Your task to perform on an android device: turn off improve location accuracy Image 0: 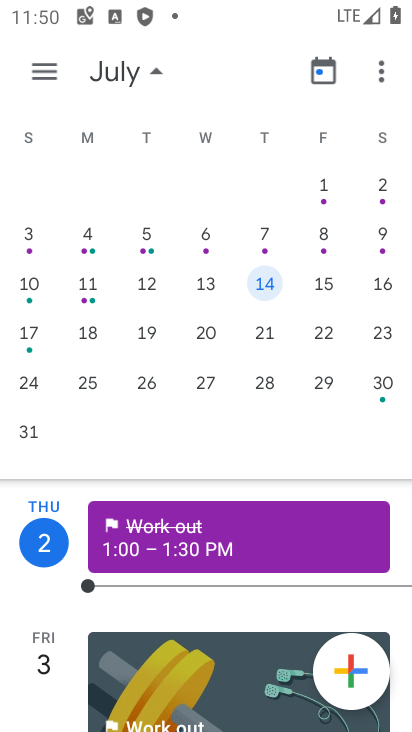
Step 0: press home button
Your task to perform on an android device: turn off improve location accuracy Image 1: 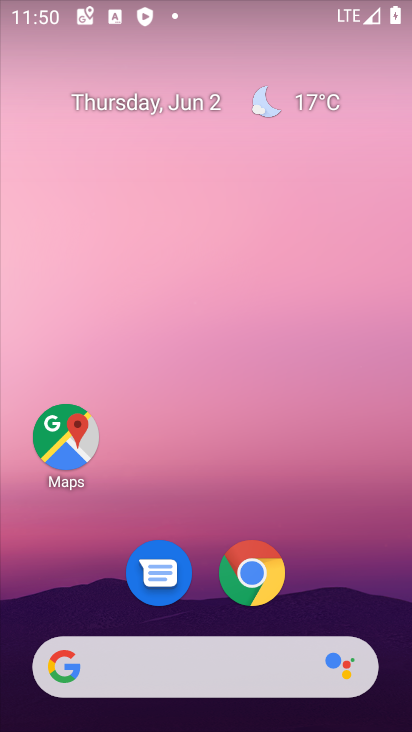
Step 1: drag from (369, 589) to (396, 23)
Your task to perform on an android device: turn off improve location accuracy Image 2: 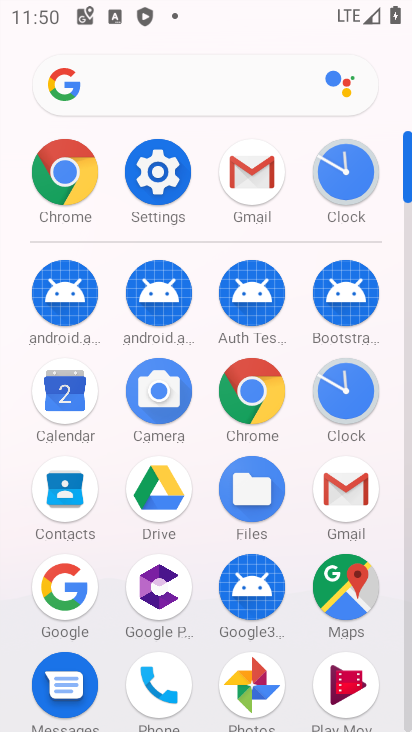
Step 2: click (164, 179)
Your task to perform on an android device: turn off improve location accuracy Image 3: 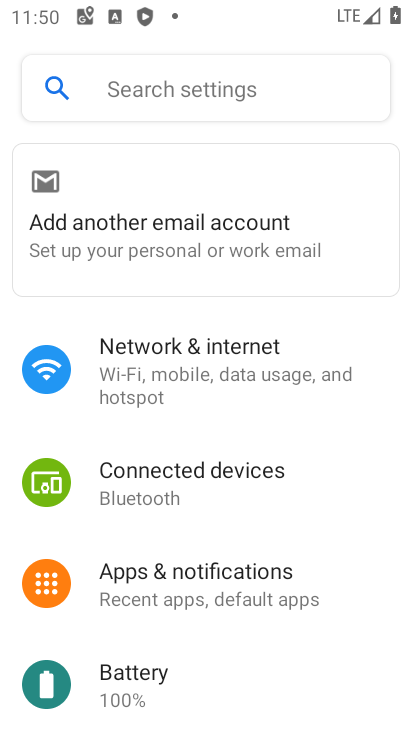
Step 3: drag from (253, 604) to (301, 27)
Your task to perform on an android device: turn off improve location accuracy Image 4: 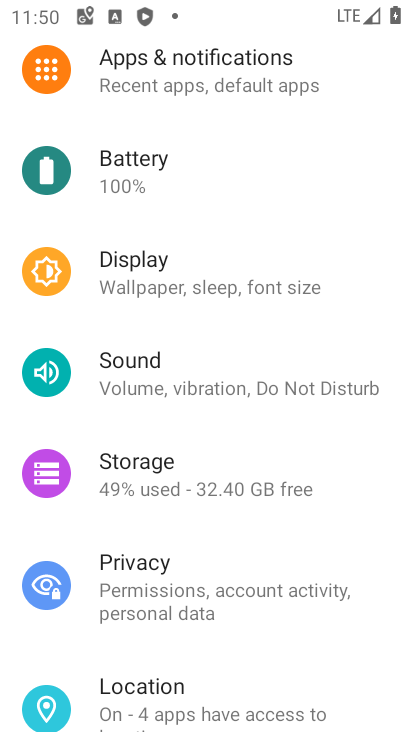
Step 4: drag from (193, 613) to (261, 153)
Your task to perform on an android device: turn off improve location accuracy Image 5: 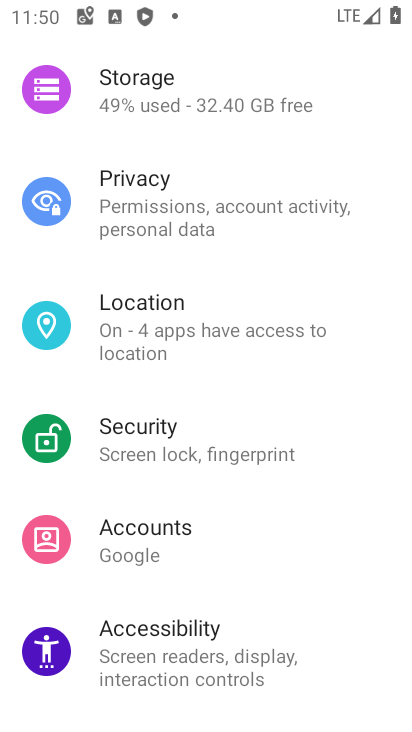
Step 5: click (152, 328)
Your task to perform on an android device: turn off improve location accuracy Image 6: 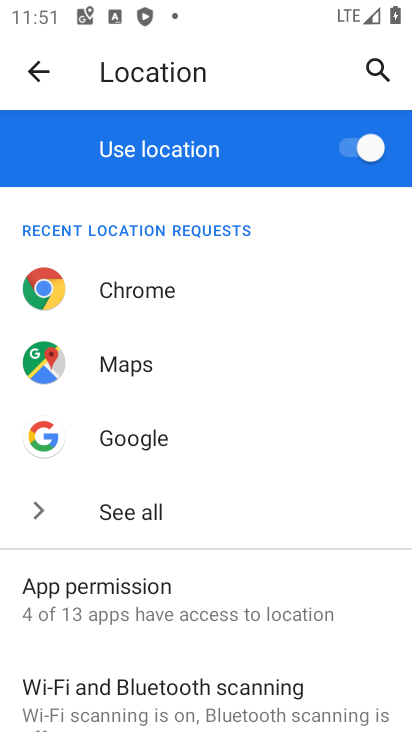
Step 6: drag from (284, 599) to (224, 130)
Your task to perform on an android device: turn off improve location accuracy Image 7: 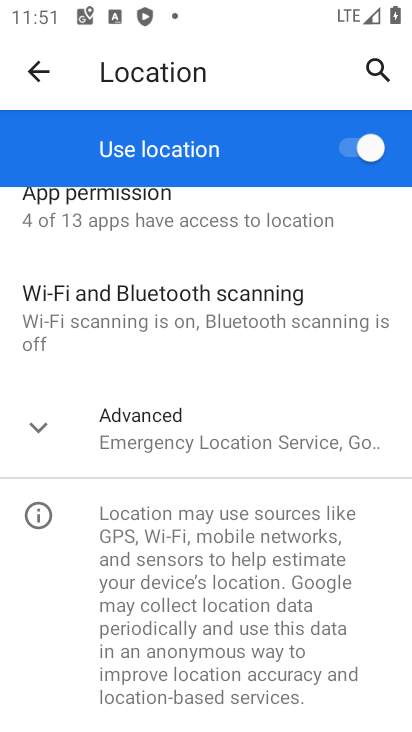
Step 7: drag from (256, 570) to (293, 210)
Your task to perform on an android device: turn off improve location accuracy Image 8: 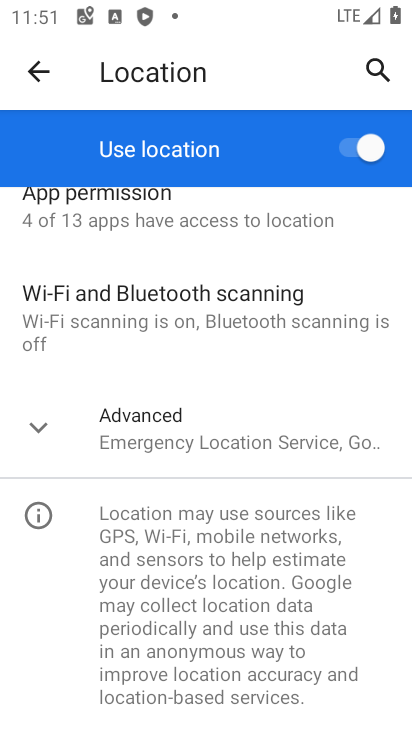
Step 8: click (259, 439)
Your task to perform on an android device: turn off improve location accuracy Image 9: 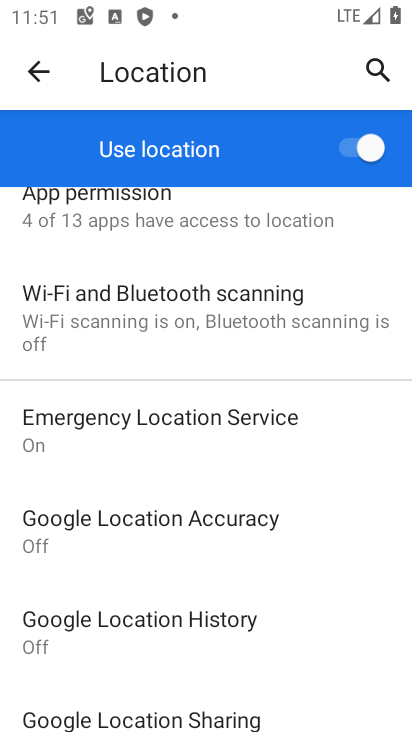
Step 9: drag from (248, 559) to (234, 262)
Your task to perform on an android device: turn off improve location accuracy Image 10: 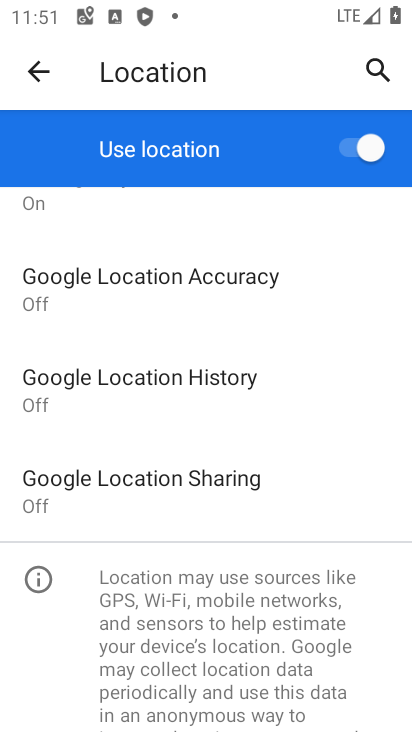
Step 10: click (216, 293)
Your task to perform on an android device: turn off improve location accuracy Image 11: 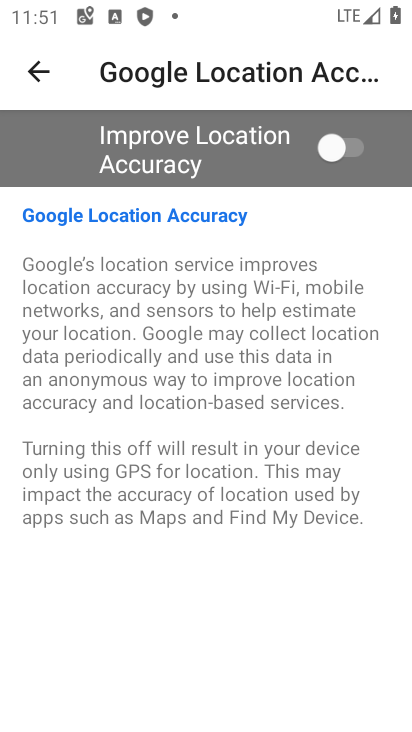
Step 11: task complete